Your task to perform on an android device: turn on sleep mode Image 0: 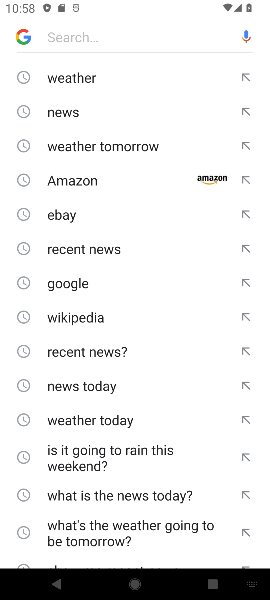
Step 0: press back button
Your task to perform on an android device: turn on sleep mode Image 1: 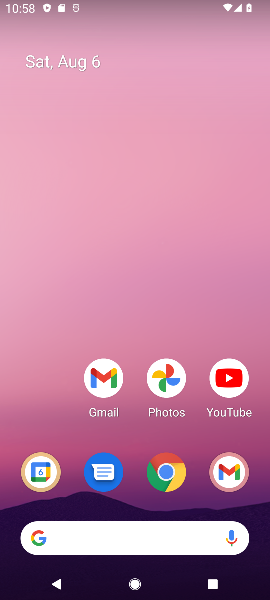
Step 1: drag from (127, 449) to (60, 158)
Your task to perform on an android device: turn on sleep mode Image 2: 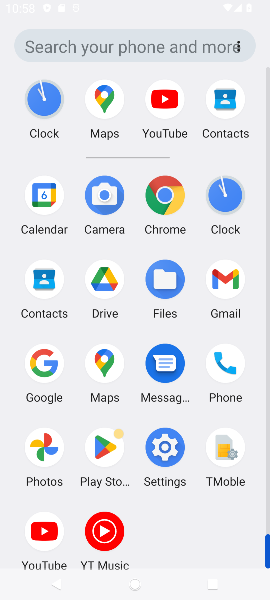
Step 2: drag from (107, 372) to (77, 164)
Your task to perform on an android device: turn on sleep mode Image 3: 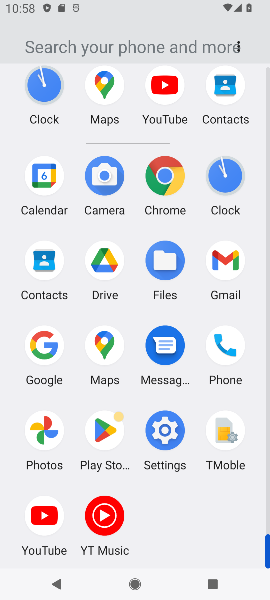
Step 3: drag from (182, 409) to (135, 189)
Your task to perform on an android device: turn on sleep mode Image 4: 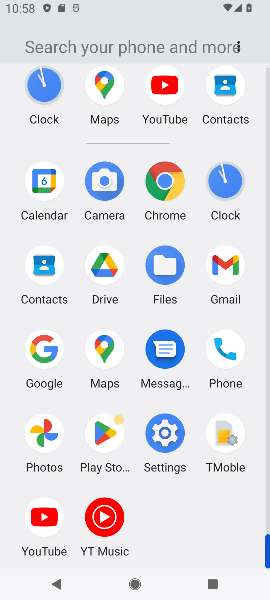
Step 4: click (158, 431)
Your task to perform on an android device: turn on sleep mode Image 5: 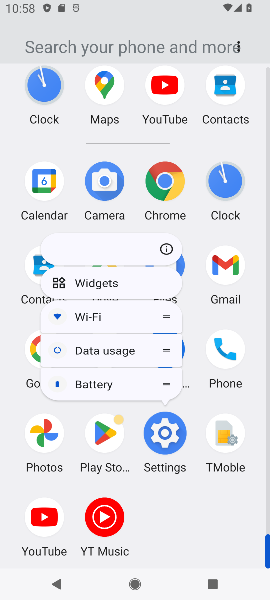
Step 5: click (158, 432)
Your task to perform on an android device: turn on sleep mode Image 6: 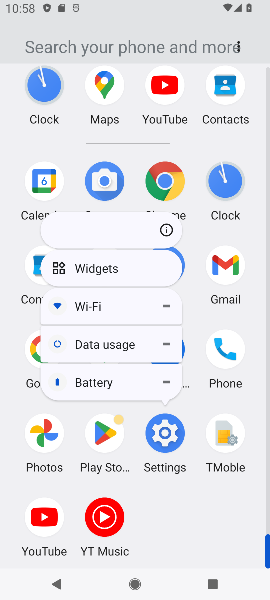
Step 6: click (158, 433)
Your task to perform on an android device: turn on sleep mode Image 7: 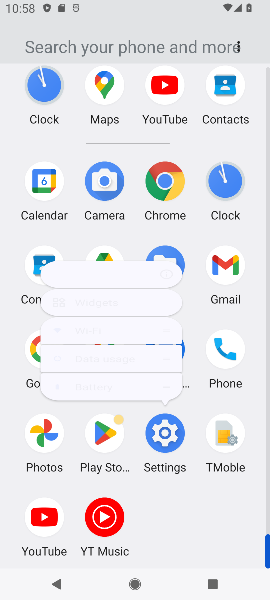
Step 7: click (158, 434)
Your task to perform on an android device: turn on sleep mode Image 8: 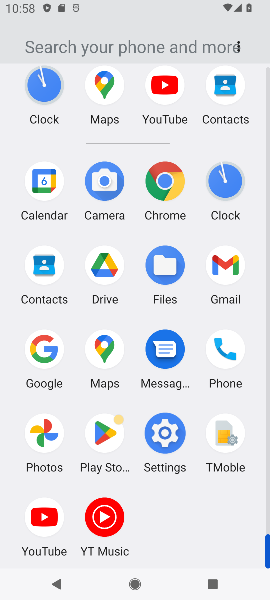
Step 8: click (158, 434)
Your task to perform on an android device: turn on sleep mode Image 9: 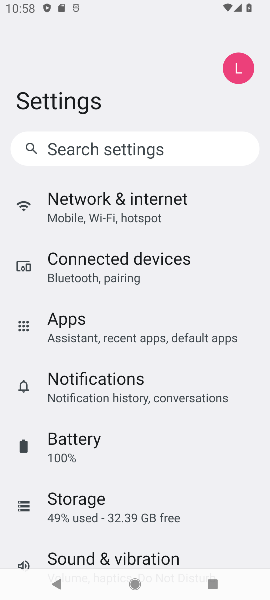
Step 9: drag from (80, 451) to (42, 204)
Your task to perform on an android device: turn on sleep mode Image 10: 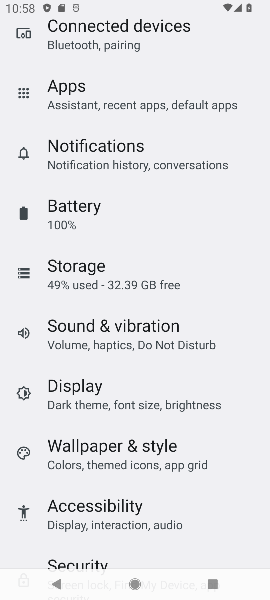
Step 10: drag from (148, 485) to (112, 218)
Your task to perform on an android device: turn on sleep mode Image 11: 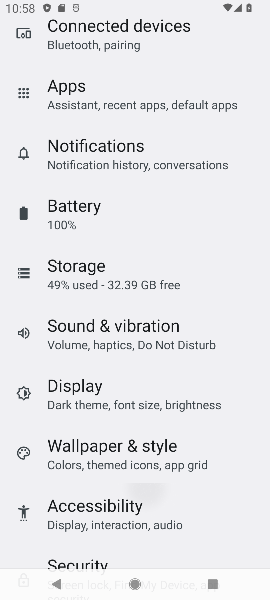
Step 11: drag from (135, 388) to (113, 276)
Your task to perform on an android device: turn on sleep mode Image 12: 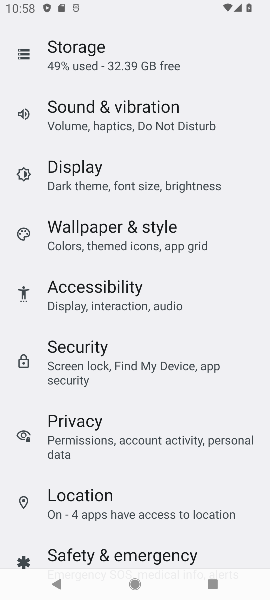
Step 12: click (67, 178)
Your task to perform on an android device: turn on sleep mode Image 13: 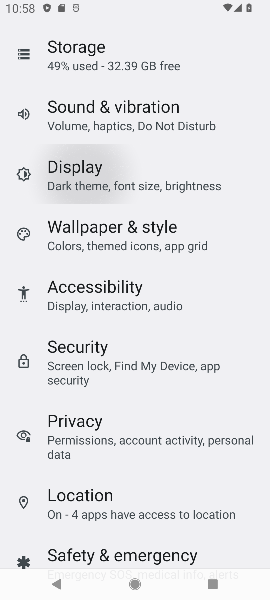
Step 13: click (67, 172)
Your task to perform on an android device: turn on sleep mode Image 14: 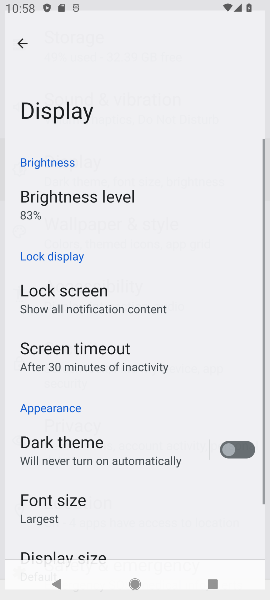
Step 14: click (69, 173)
Your task to perform on an android device: turn on sleep mode Image 15: 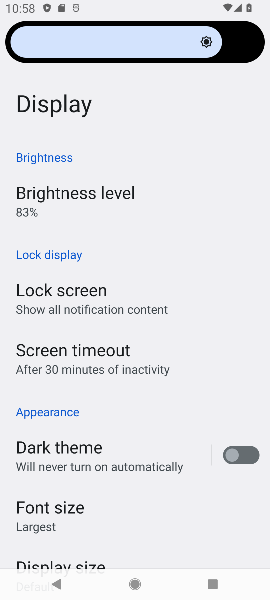
Step 15: click (63, 381)
Your task to perform on an android device: turn on sleep mode Image 16: 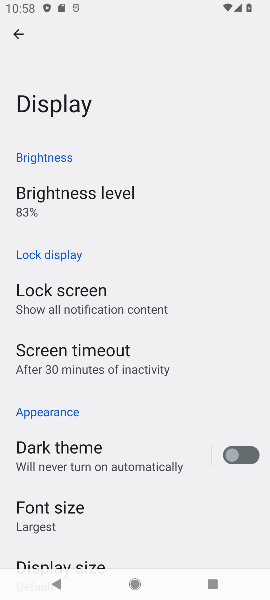
Step 16: click (76, 358)
Your task to perform on an android device: turn on sleep mode Image 17: 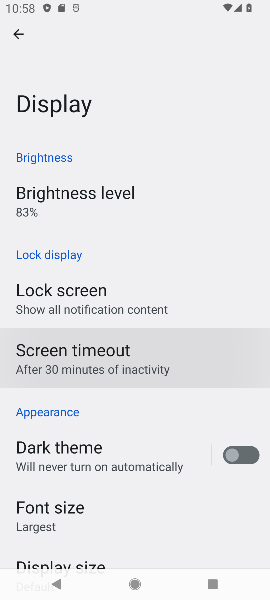
Step 17: click (77, 357)
Your task to perform on an android device: turn on sleep mode Image 18: 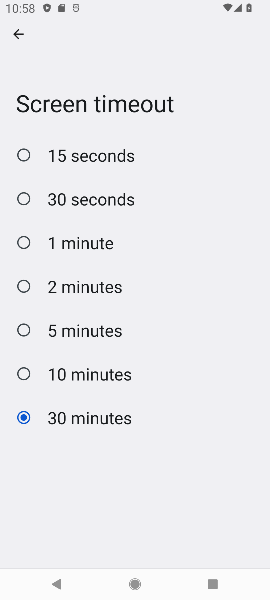
Step 18: task complete